Your task to perform on an android device: toggle translation in the chrome app Image 0: 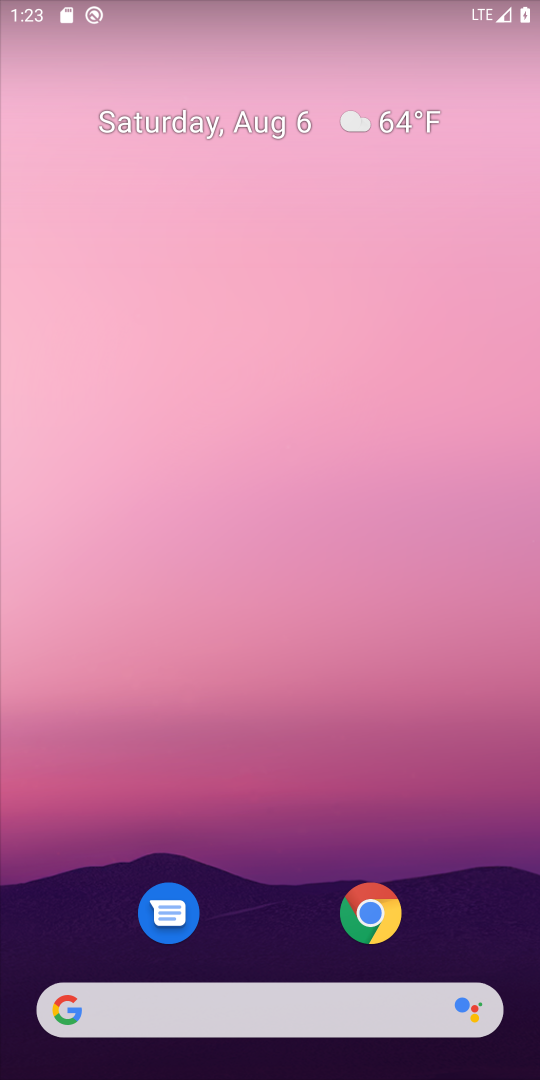
Step 0: drag from (269, 914) to (316, 305)
Your task to perform on an android device: toggle translation in the chrome app Image 1: 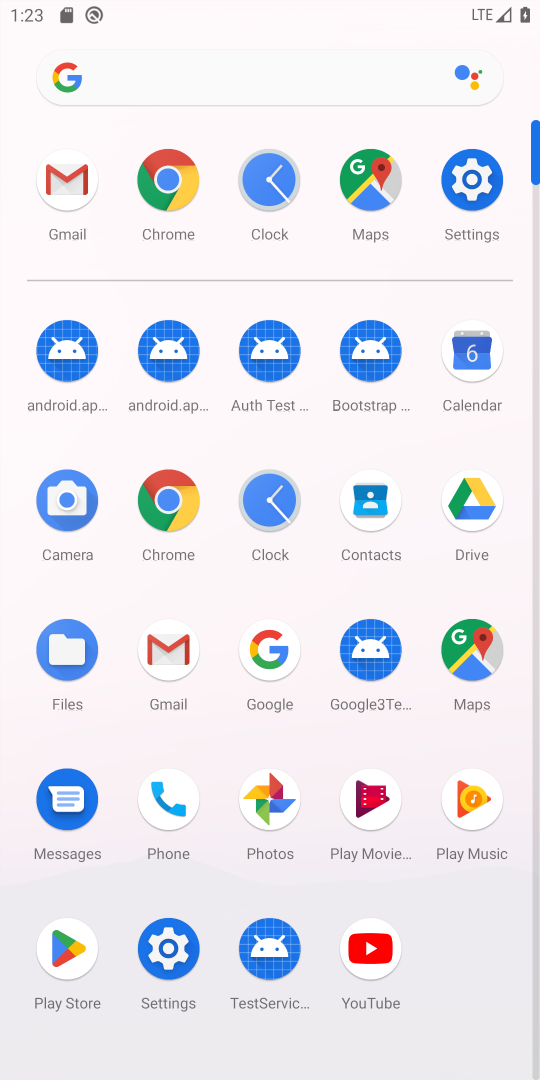
Step 1: click (163, 501)
Your task to perform on an android device: toggle translation in the chrome app Image 2: 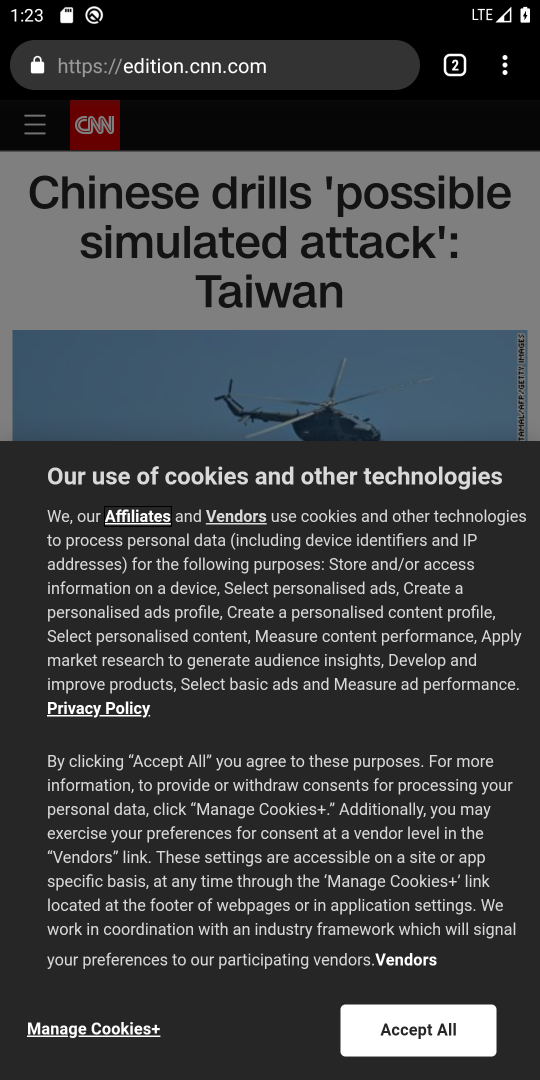
Step 2: click (508, 73)
Your task to perform on an android device: toggle translation in the chrome app Image 3: 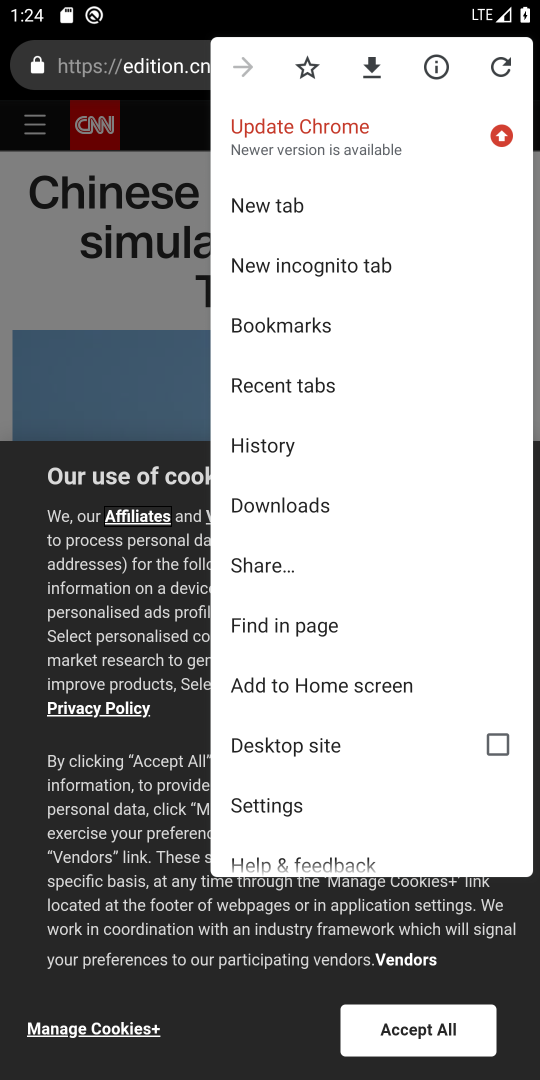
Step 3: click (286, 800)
Your task to perform on an android device: toggle translation in the chrome app Image 4: 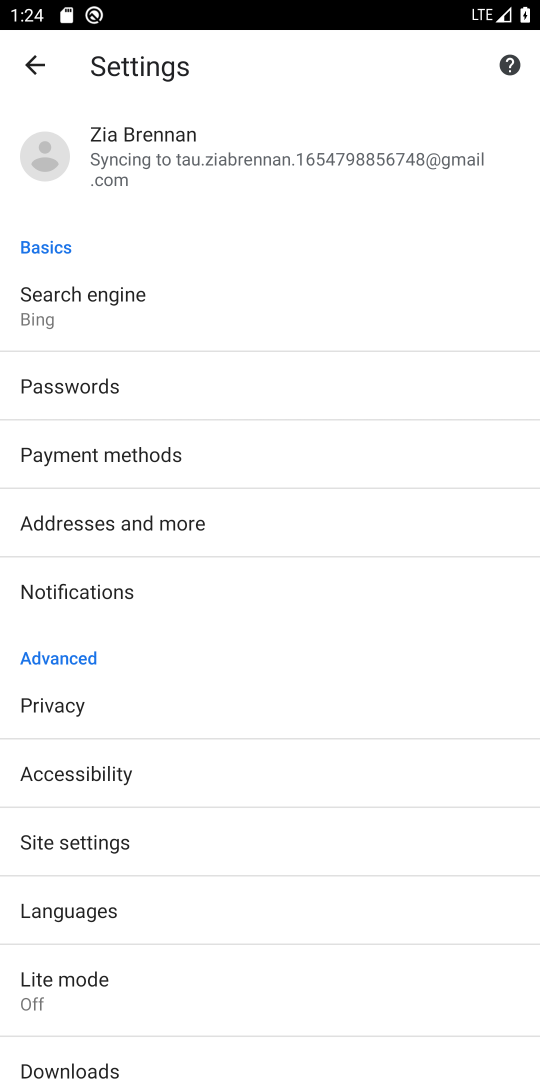
Step 4: click (196, 903)
Your task to perform on an android device: toggle translation in the chrome app Image 5: 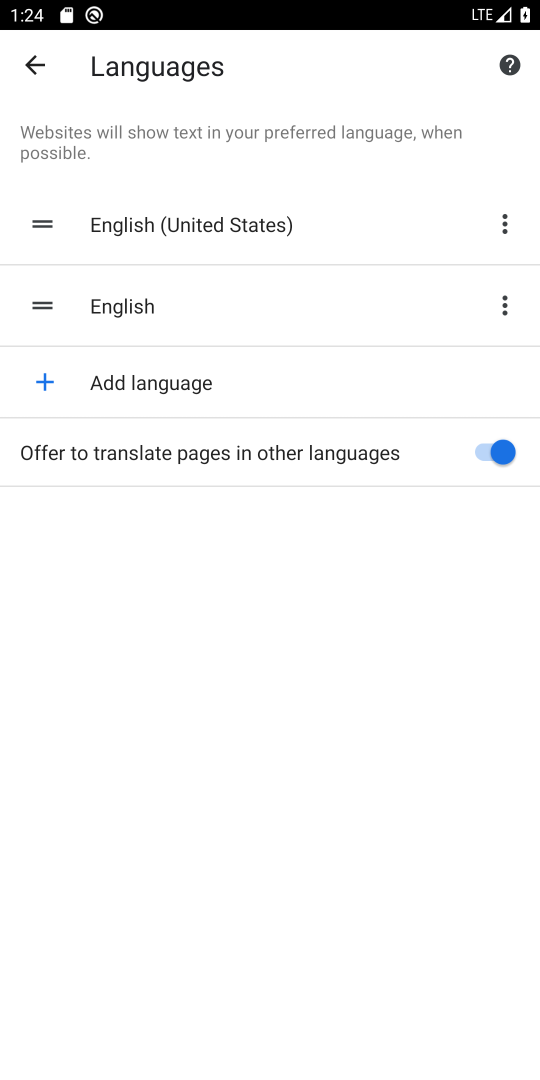
Step 5: click (494, 460)
Your task to perform on an android device: toggle translation in the chrome app Image 6: 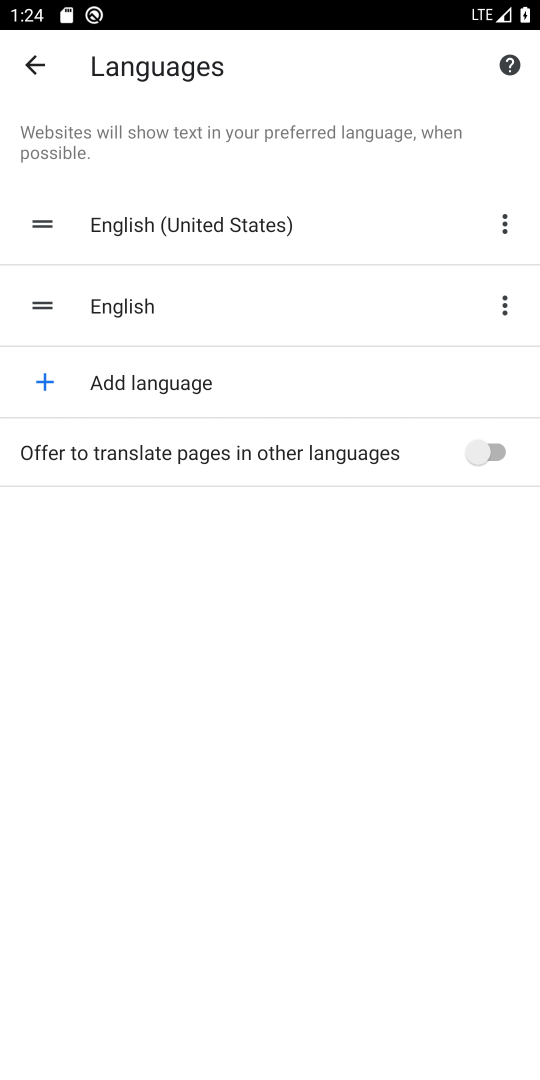
Step 6: task complete